Your task to perform on an android device: Go to ESPN.com Image 0: 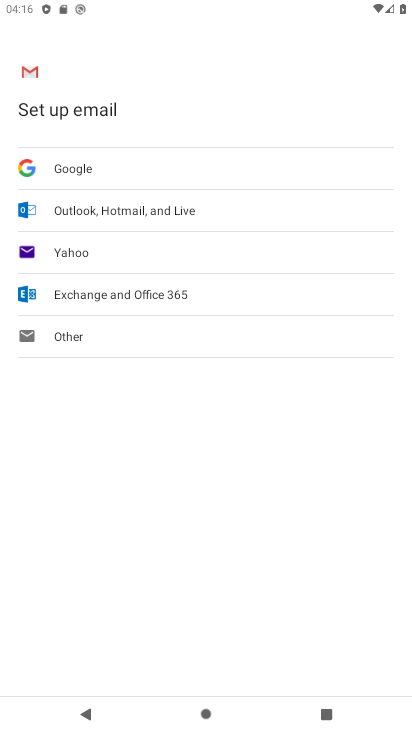
Step 0: press back button
Your task to perform on an android device: Go to ESPN.com Image 1: 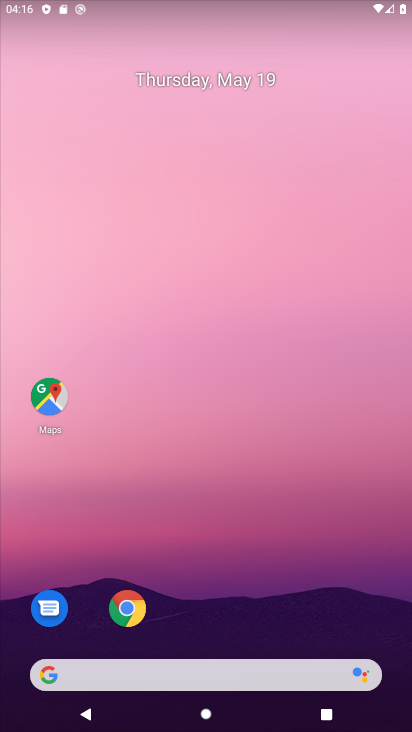
Step 1: click (125, 610)
Your task to perform on an android device: Go to ESPN.com Image 2: 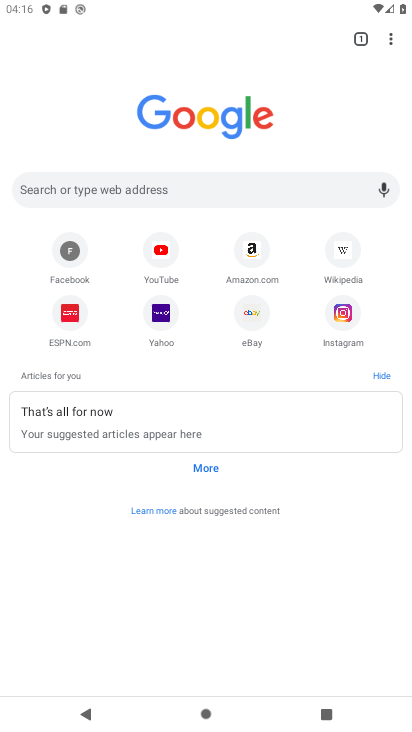
Step 2: click (218, 190)
Your task to perform on an android device: Go to ESPN.com Image 3: 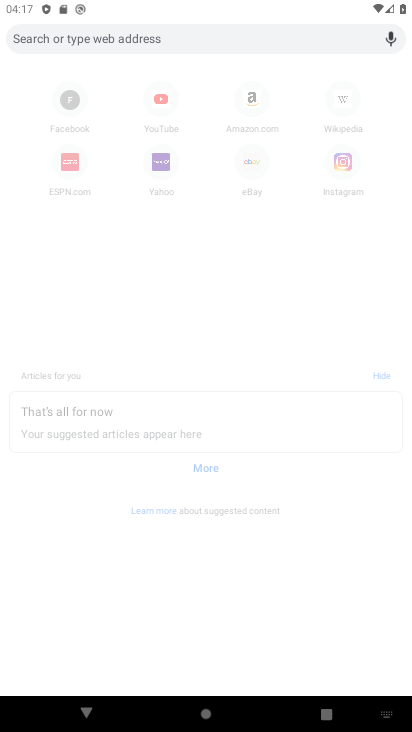
Step 3: type "ESPN.com"
Your task to perform on an android device: Go to ESPN.com Image 4: 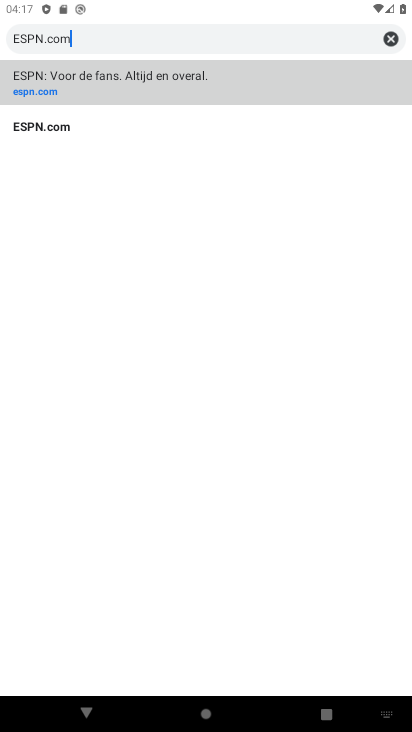
Step 4: click (55, 133)
Your task to perform on an android device: Go to ESPN.com Image 5: 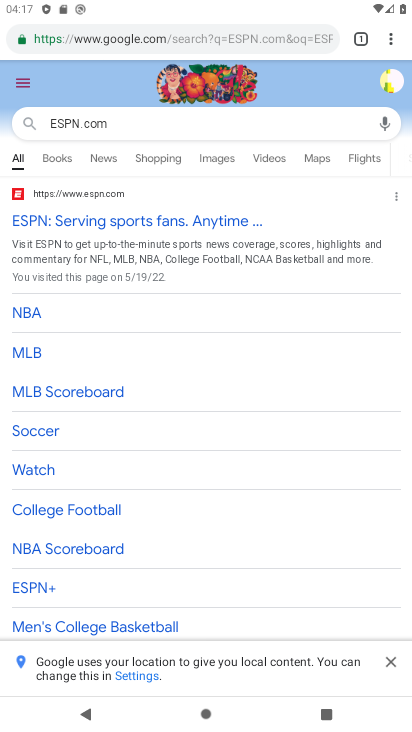
Step 5: click (70, 219)
Your task to perform on an android device: Go to ESPN.com Image 6: 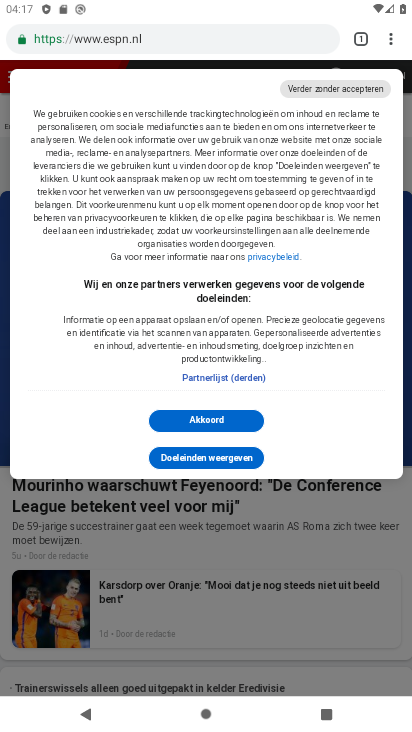
Step 6: click (186, 417)
Your task to perform on an android device: Go to ESPN.com Image 7: 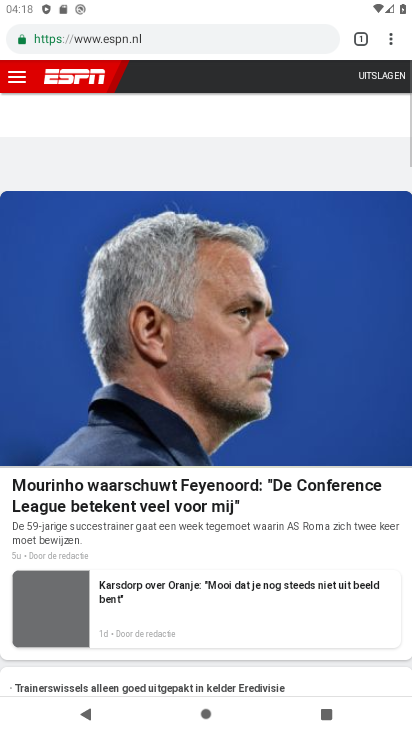
Step 7: task complete